Your task to perform on an android device: Open my contact list Image 0: 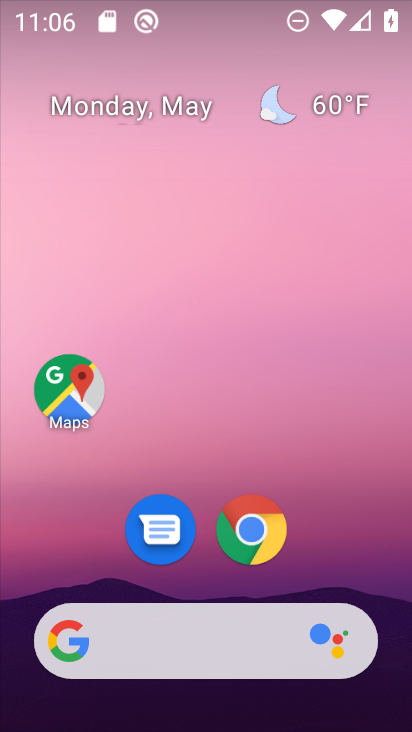
Step 0: drag from (320, 538) to (175, 7)
Your task to perform on an android device: Open my contact list Image 1: 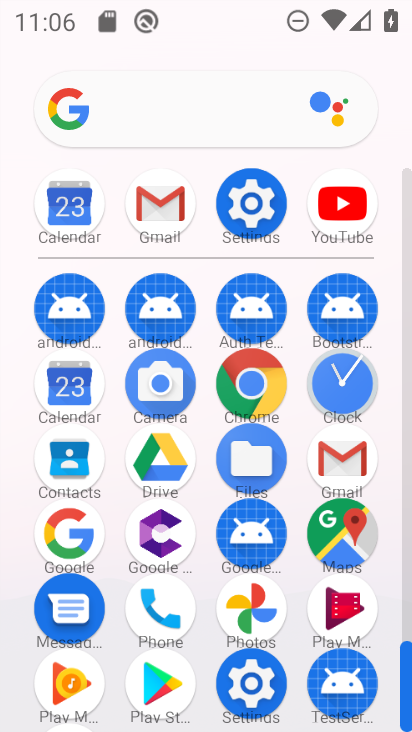
Step 1: click (72, 456)
Your task to perform on an android device: Open my contact list Image 2: 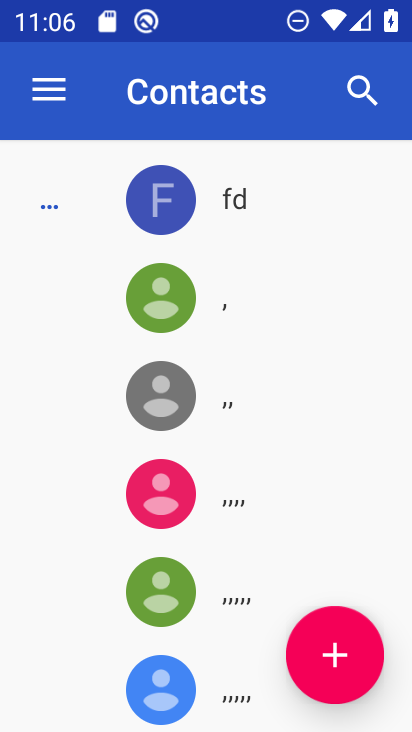
Step 2: click (340, 659)
Your task to perform on an android device: Open my contact list Image 3: 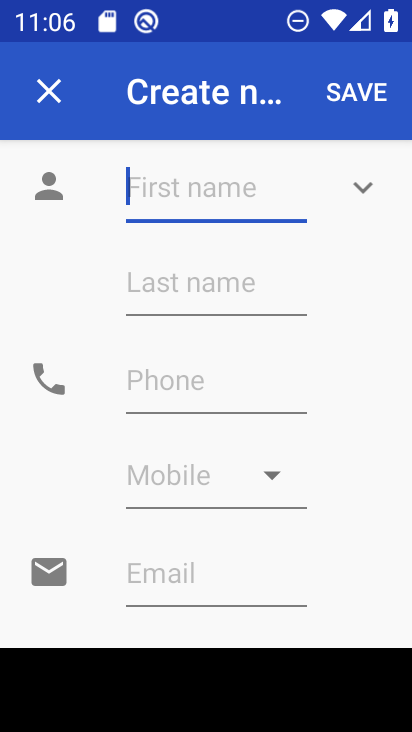
Step 3: click (45, 93)
Your task to perform on an android device: Open my contact list Image 4: 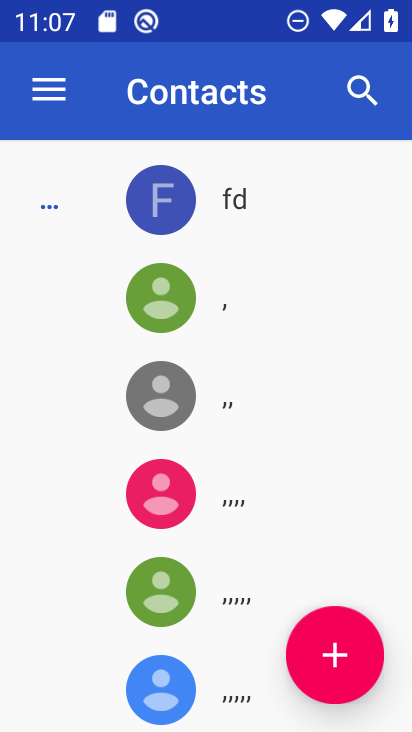
Step 4: task complete